Your task to perform on an android device: Open Chrome and go to settings Image 0: 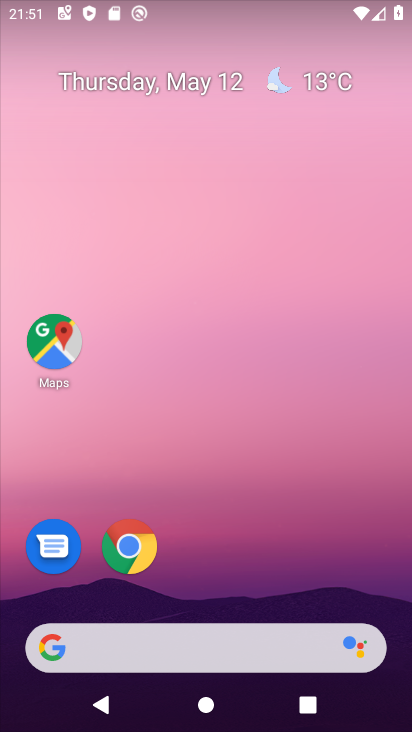
Step 0: click (134, 550)
Your task to perform on an android device: Open Chrome and go to settings Image 1: 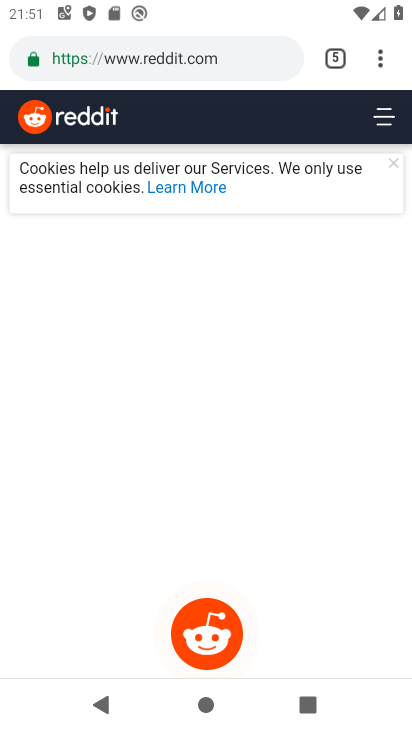
Step 1: task complete